Your task to perform on an android device: toggle notifications settings in the gmail app Image 0: 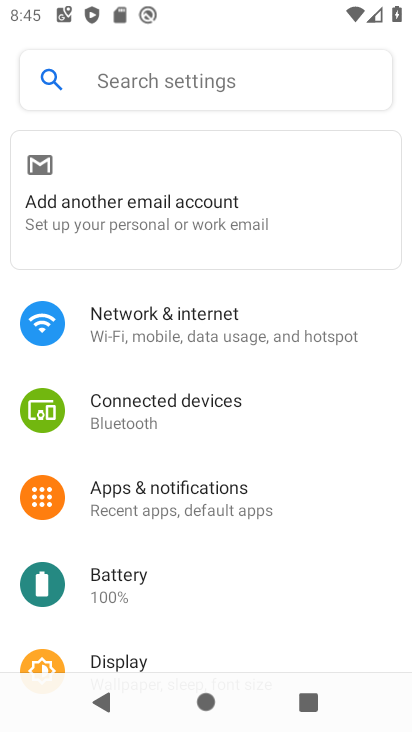
Step 0: press home button
Your task to perform on an android device: toggle notifications settings in the gmail app Image 1: 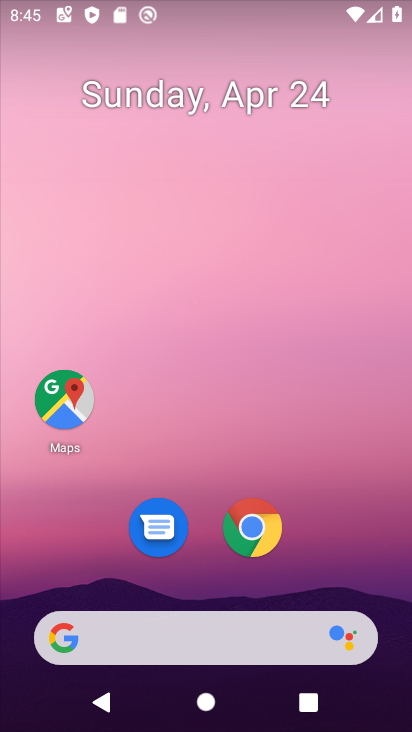
Step 1: drag from (343, 497) to (281, 15)
Your task to perform on an android device: toggle notifications settings in the gmail app Image 2: 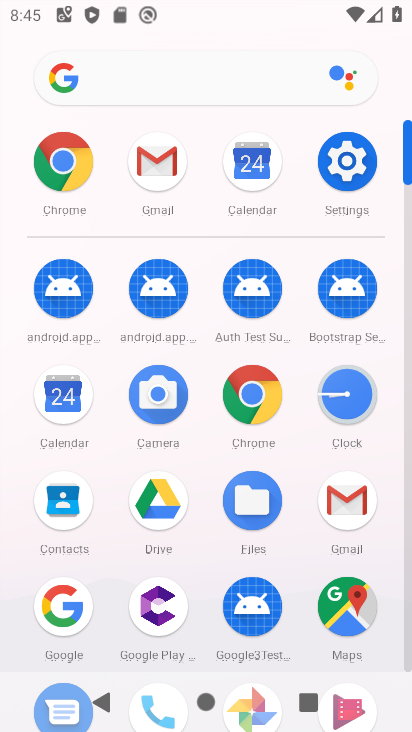
Step 2: click (159, 173)
Your task to perform on an android device: toggle notifications settings in the gmail app Image 3: 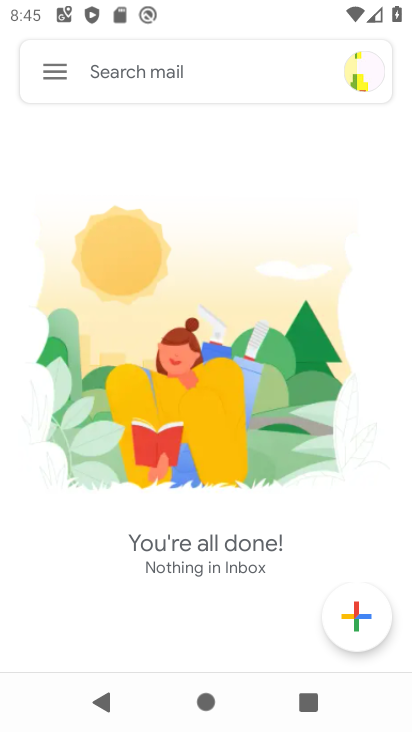
Step 3: click (52, 71)
Your task to perform on an android device: toggle notifications settings in the gmail app Image 4: 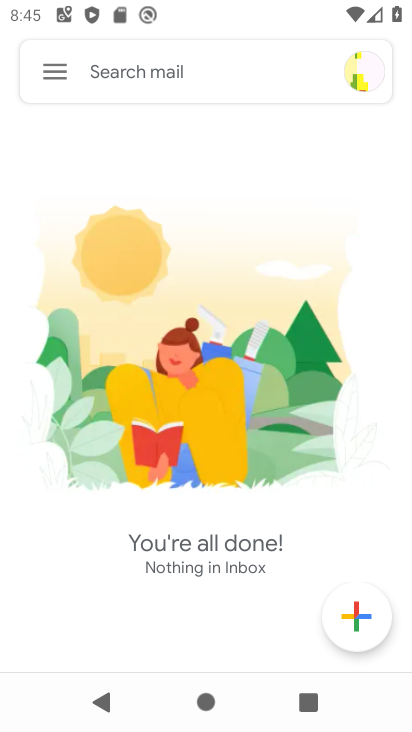
Step 4: click (52, 71)
Your task to perform on an android device: toggle notifications settings in the gmail app Image 5: 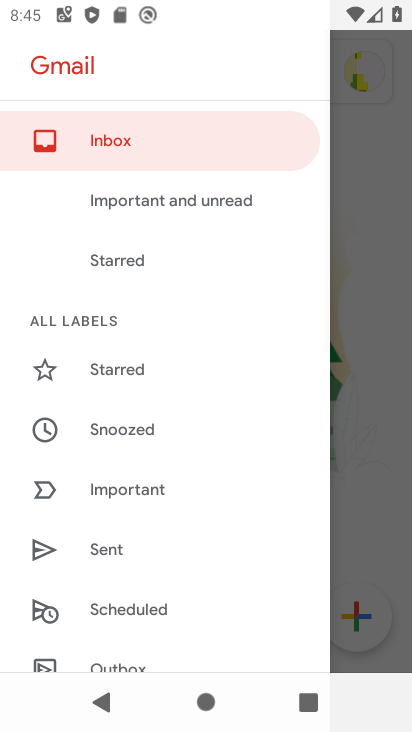
Step 5: drag from (187, 526) to (225, 117)
Your task to perform on an android device: toggle notifications settings in the gmail app Image 6: 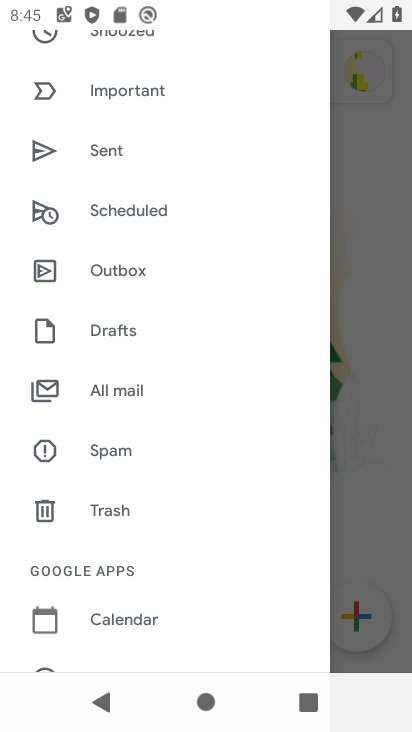
Step 6: drag from (156, 469) to (192, 134)
Your task to perform on an android device: toggle notifications settings in the gmail app Image 7: 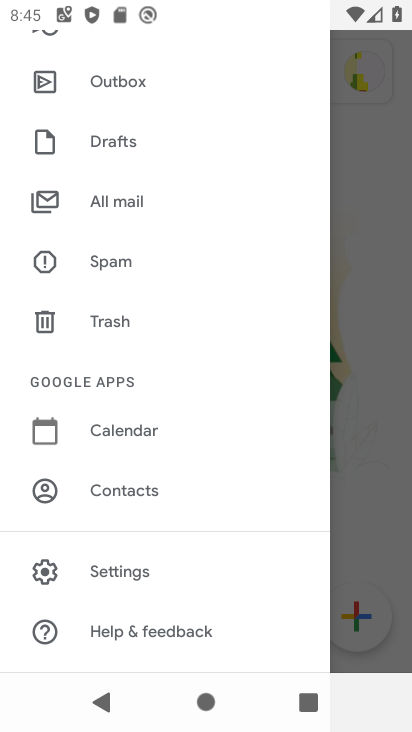
Step 7: click (122, 570)
Your task to perform on an android device: toggle notifications settings in the gmail app Image 8: 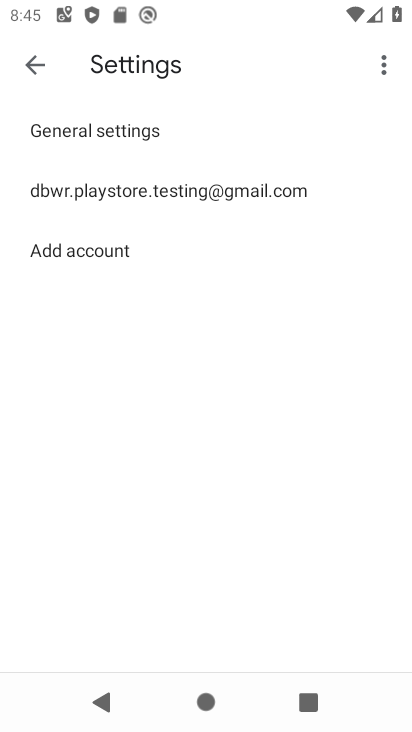
Step 8: click (106, 133)
Your task to perform on an android device: toggle notifications settings in the gmail app Image 9: 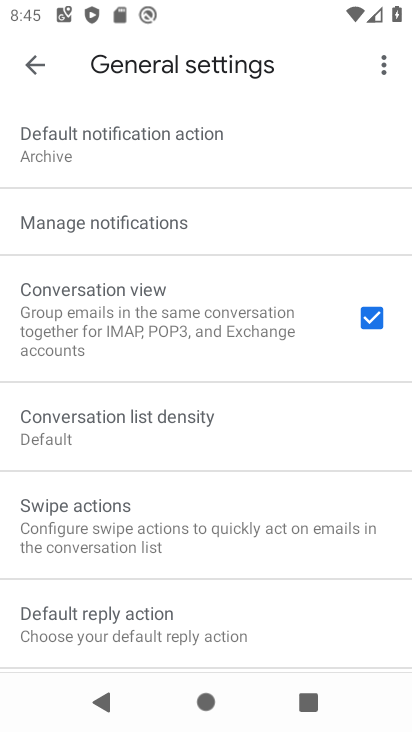
Step 9: click (116, 222)
Your task to perform on an android device: toggle notifications settings in the gmail app Image 10: 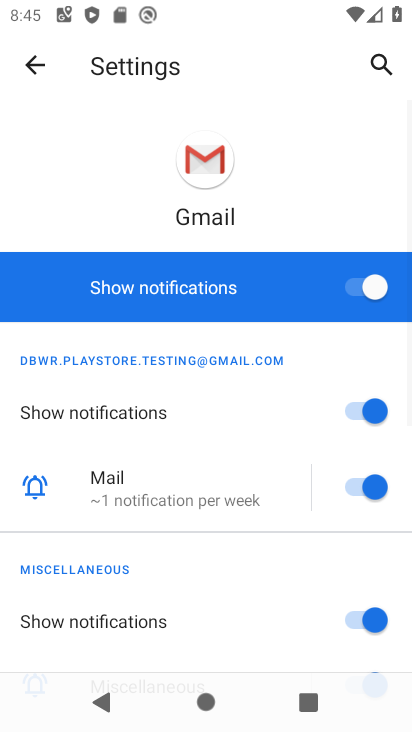
Step 10: click (379, 292)
Your task to perform on an android device: toggle notifications settings in the gmail app Image 11: 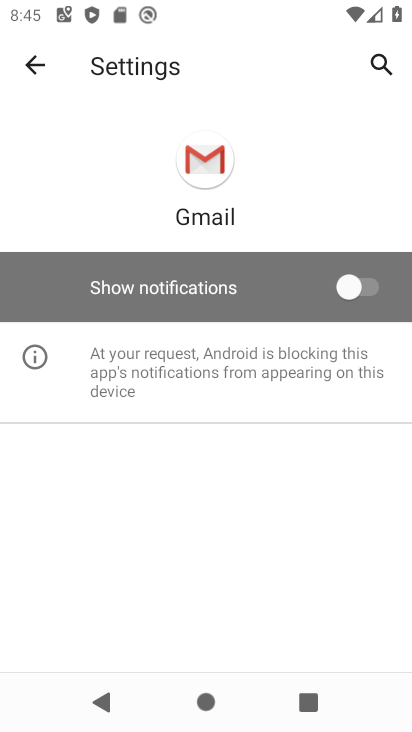
Step 11: task complete